Your task to perform on an android device: find snoozed emails in the gmail app Image 0: 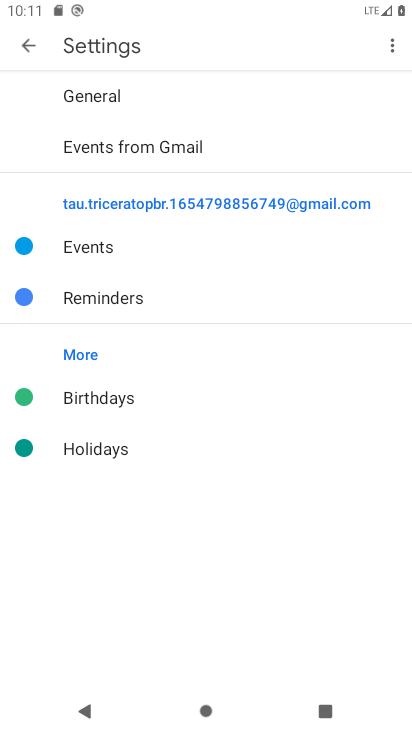
Step 0: press home button
Your task to perform on an android device: find snoozed emails in the gmail app Image 1: 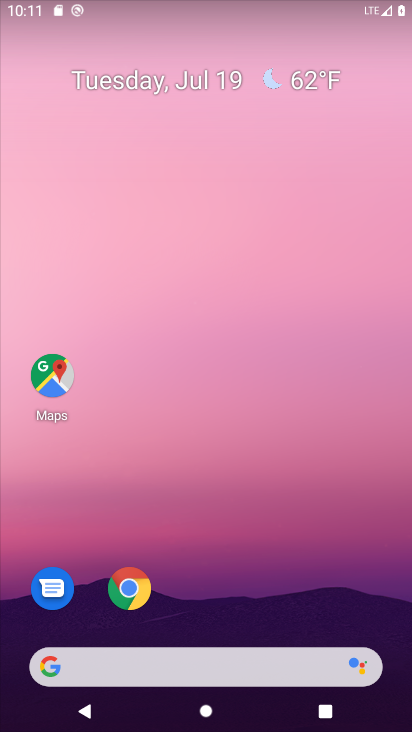
Step 1: drag from (196, 525) to (184, 143)
Your task to perform on an android device: find snoozed emails in the gmail app Image 2: 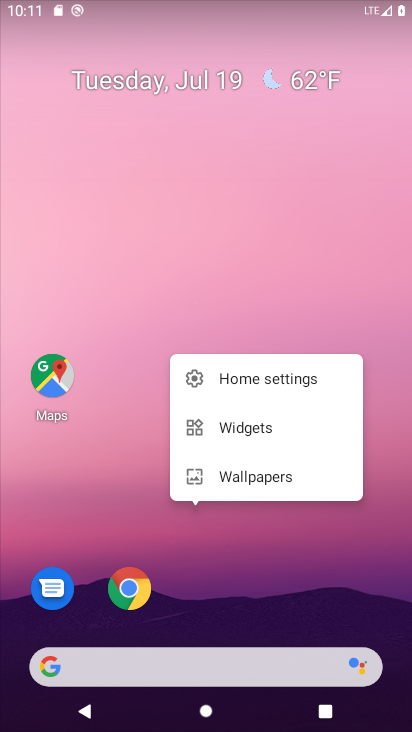
Step 2: click (205, 612)
Your task to perform on an android device: find snoozed emails in the gmail app Image 3: 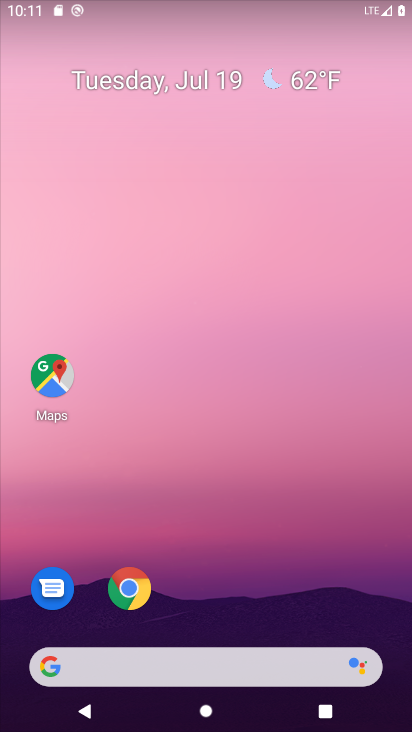
Step 3: drag from (205, 612) to (205, 71)
Your task to perform on an android device: find snoozed emails in the gmail app Image 4: 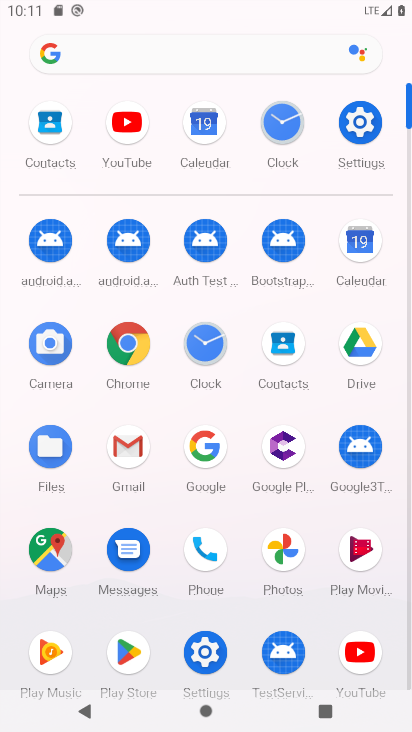
Step 4: click (132, 473)
Your task to perform on an android device: find snoozed emails in the gmail app Image 5: 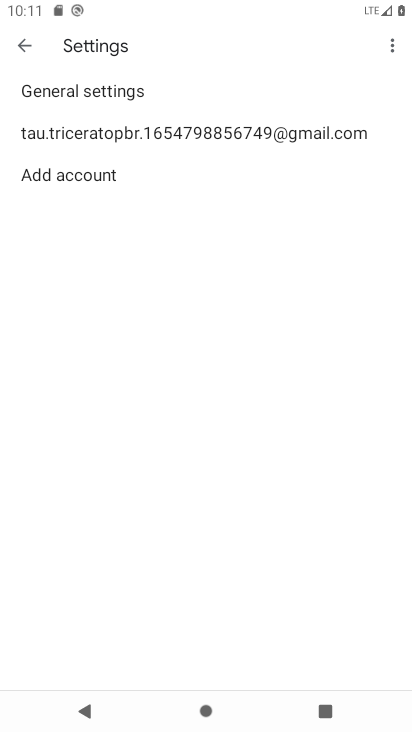
Step 5: click (19, 47)
Your task to perform on an android device: find snoozed emails in the gmail app Image 6: 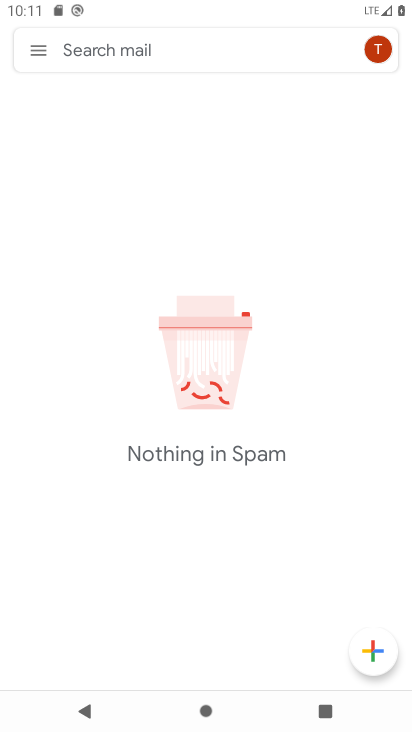
Step 6: click (42, 47)
Your task to perform on an android device: find snoozed emails in the gmail app Image 7: 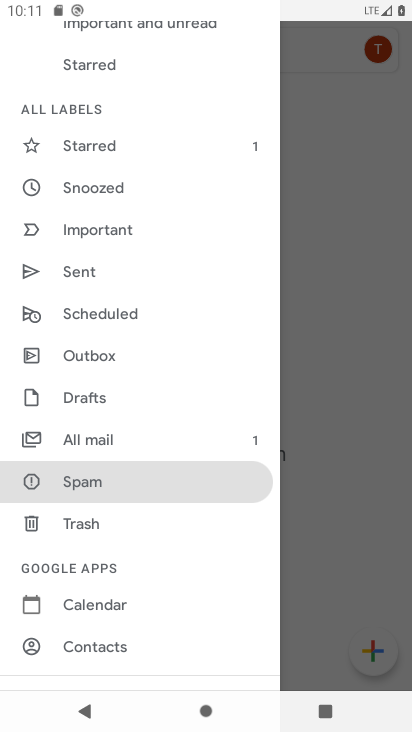
Step 7: click (88, 189)
Your task to perform on an android device: find snoozed emails in the gmail app Image 8: 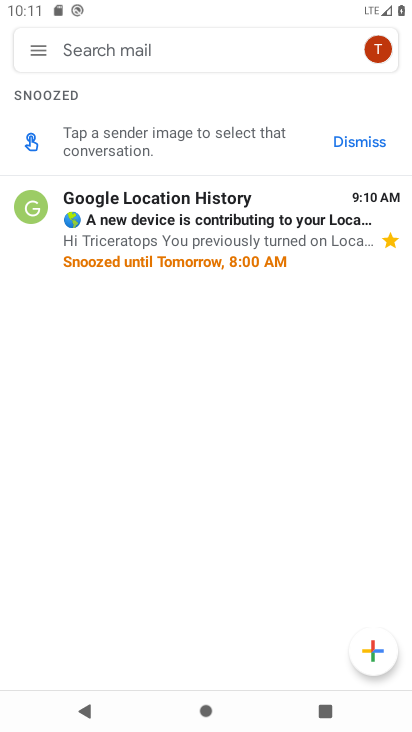
Step 8: task complete